Your task to perform on an android device: Check the weather Image 0: 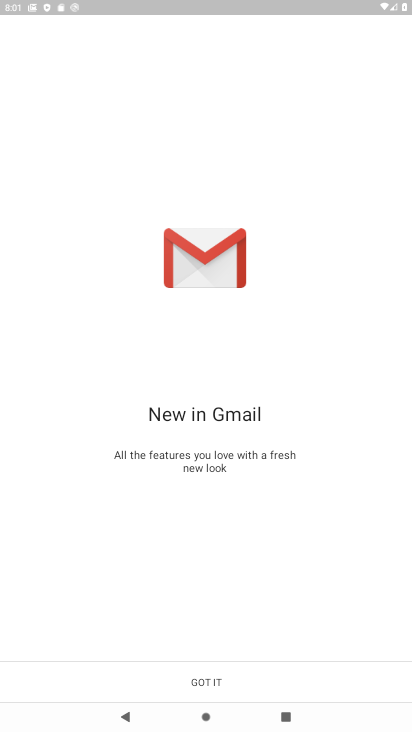
Step 0: press home button
Your task to perform on an android device: Check the weather Image 1: 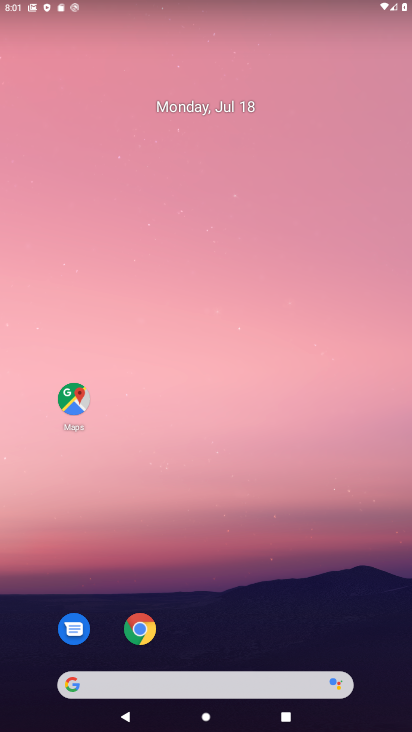
Step 1: drag from (6, 166) to (409, 161)
Your task to perform on an android device: Check the weather Image 2: 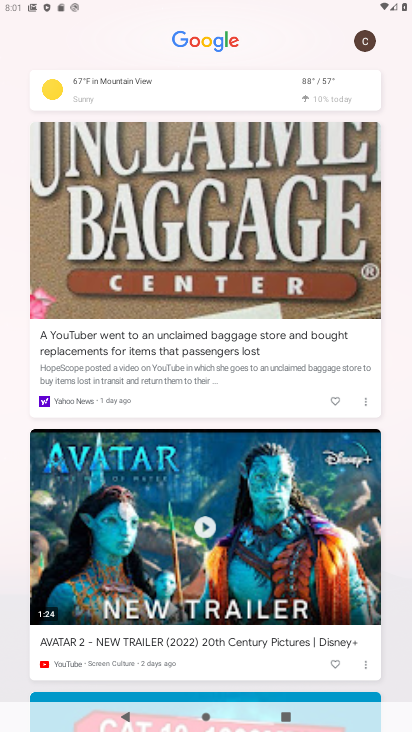
Step 2: click (347, 134)
Your task to perform on an android device: Check the weather Image 3: 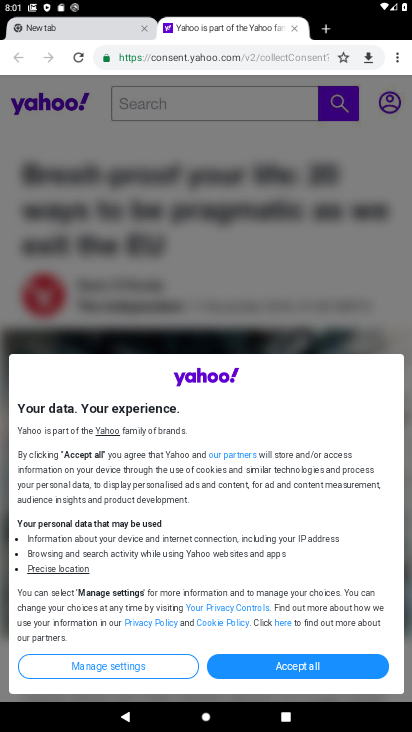
Step 3: click (292, 29)
Your task to perform on an android device: Check the weather Image 4: 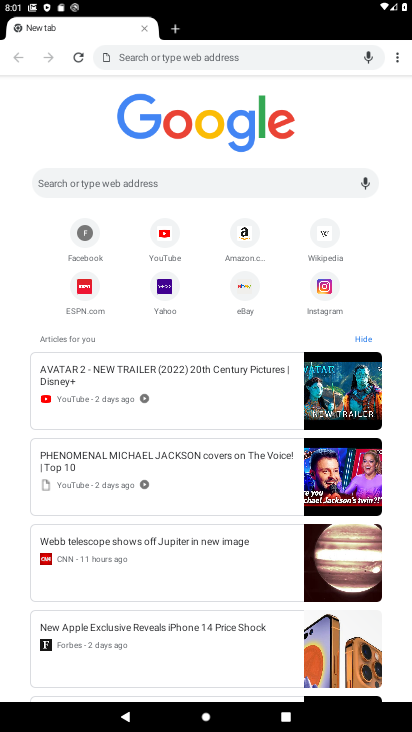
Step 4: press home button
Your task to perform on an android device: Check the weather Image 5: 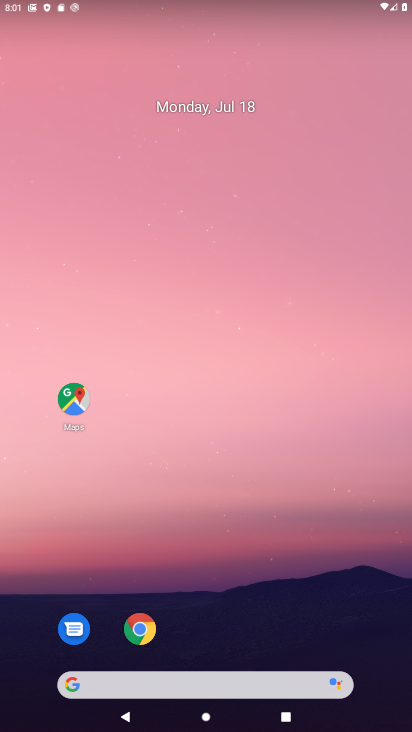
Step 5: drag from (25, 333) to (389, 17)
Your task to perform on an android device: Check the weather Image 6: 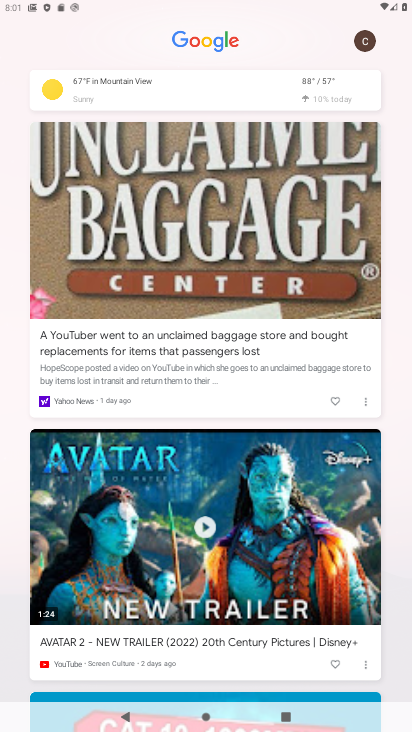
Step 6: click (311, 91)
Your task to perform on an android device: Check the weather Image 7: 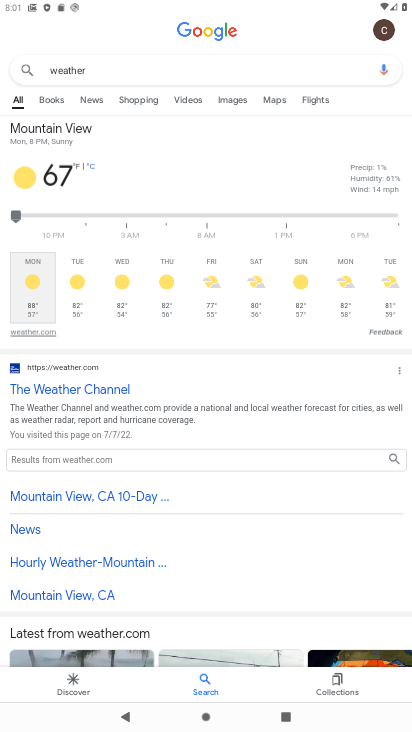
Step 7: task complete